Your task to perform on an android device: Open Chrome and go to settings Image 0: 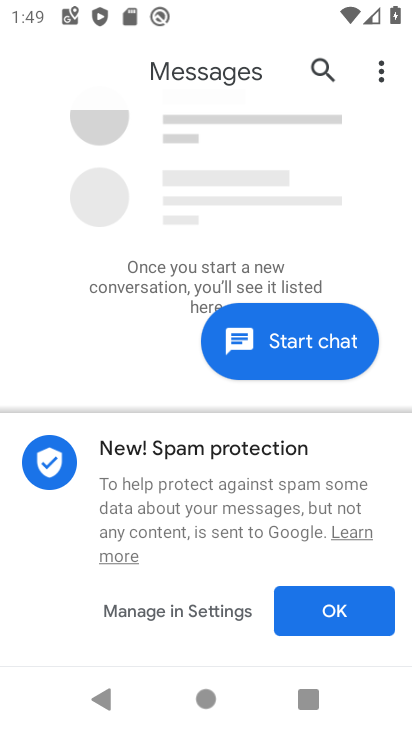
Step 0: press home button
Your task to perform on an android device: Open Chrome and go to settings Image 1: 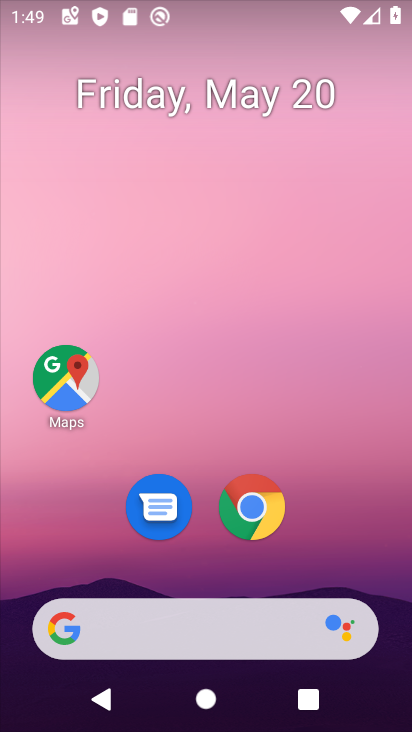
Step 1: drag from (227, 725) to (229, 235)
Your task to perform on an android device: Open Chrome and go to settings Image 2: 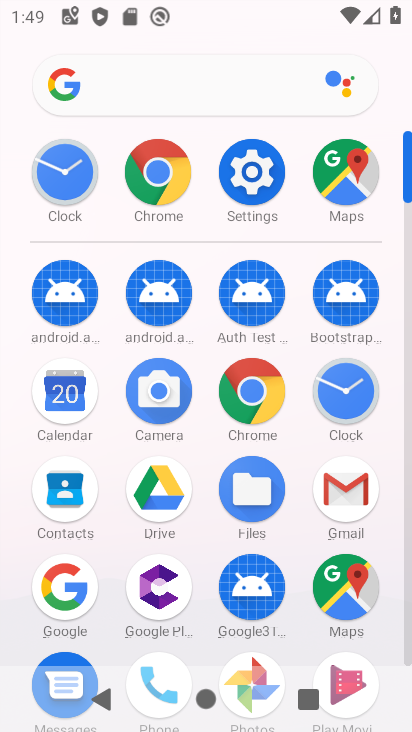
Step 2: click (248, 393)
Your task to perform on an android device: Open Chrome and go to settings Image 3: 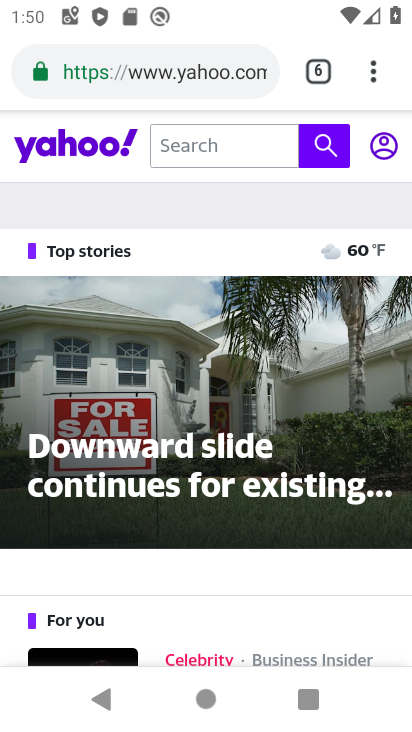
Step 3: click (375, 81)
Your task to perform on an android device: Open Chrome and go to settings Image 4: 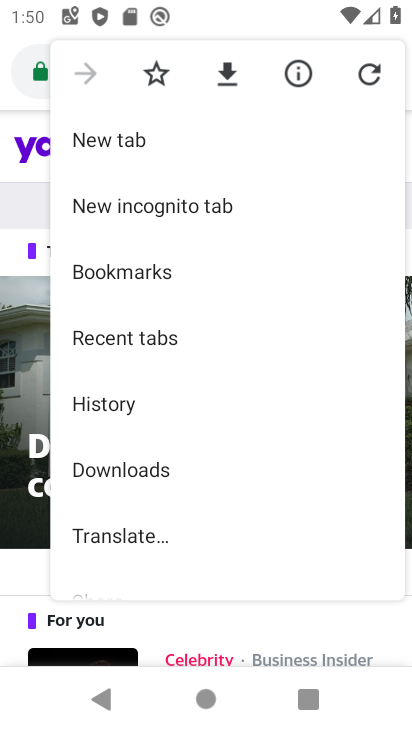
Step 4: drag from (121, 547) to (120, 166)
Your task to perform on an android device: Open Chrome and go to settings Image 5: 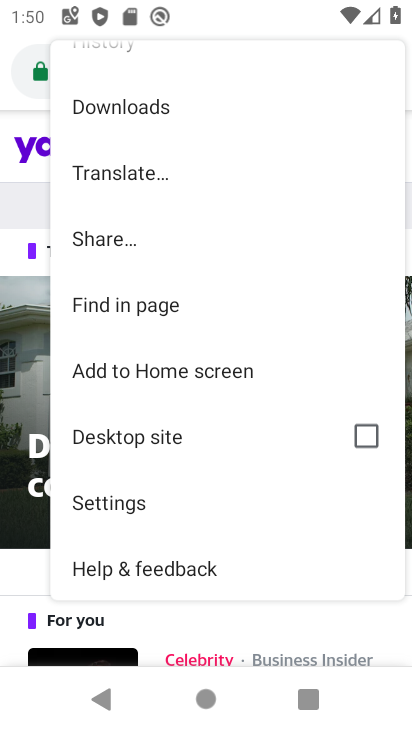
Step 5: click (104, 497)
Your task to perform on an android device: Open Chrome and go to settings Image 6: 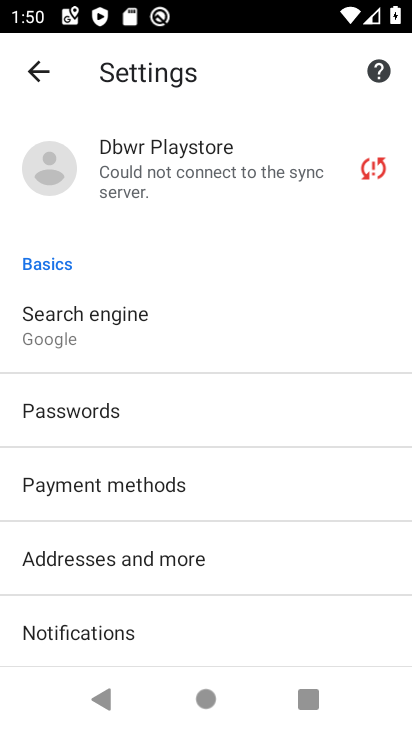
Step 6: task complete